Your task to perform on an android device: Open a new private window in Chrome Image 0: 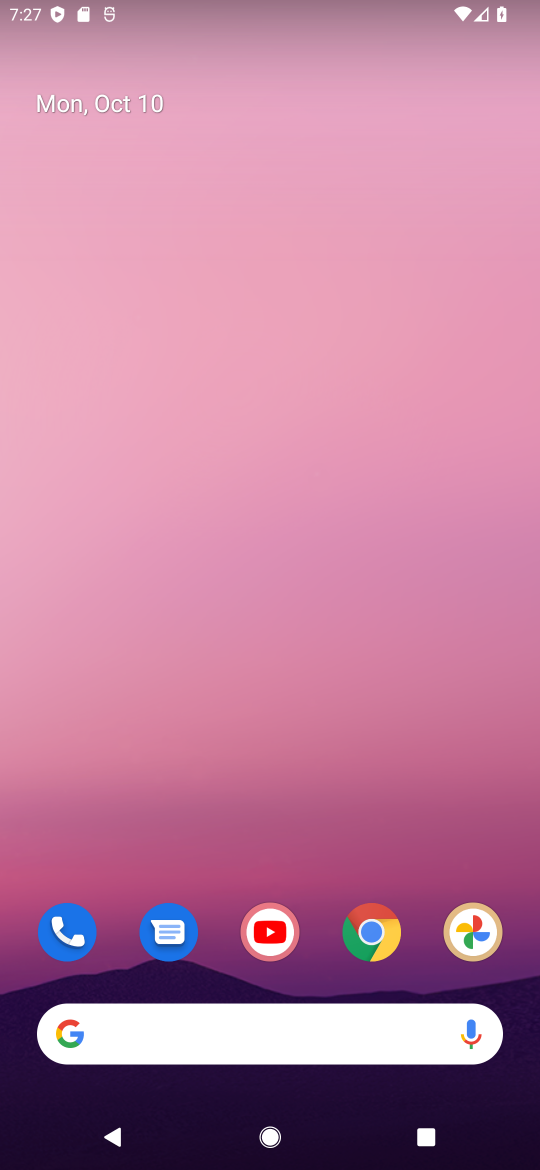
Step 0: drag from (312, 990) to (292, 158)
Your task to perform on an android device: Open a new private window in Chrome Image 1: 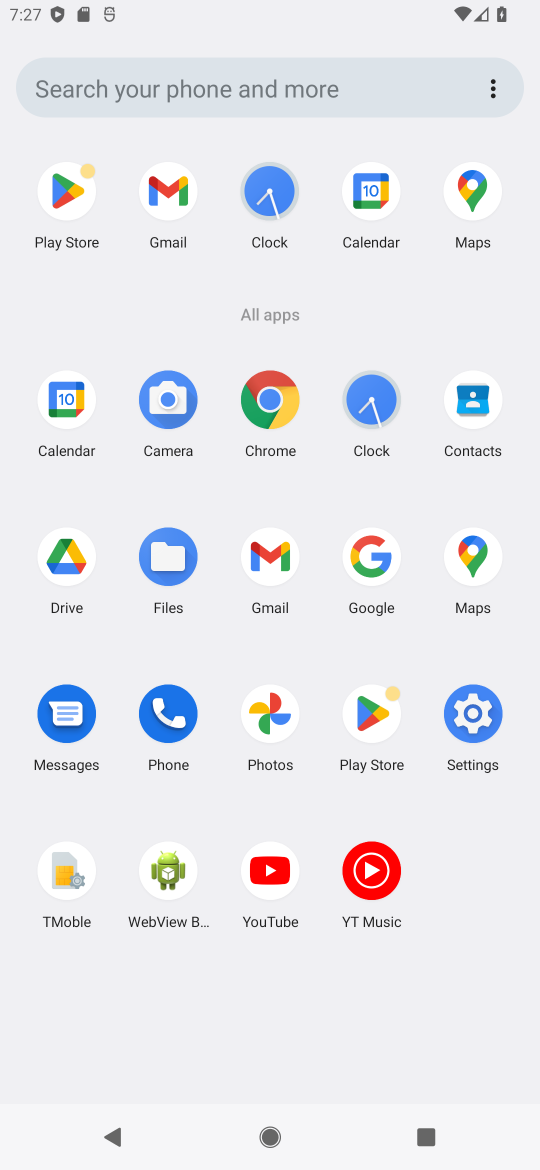
Step 1: click (270, 400)
Your task to perform on an android device: Open a new private window in Chrome Image 2: 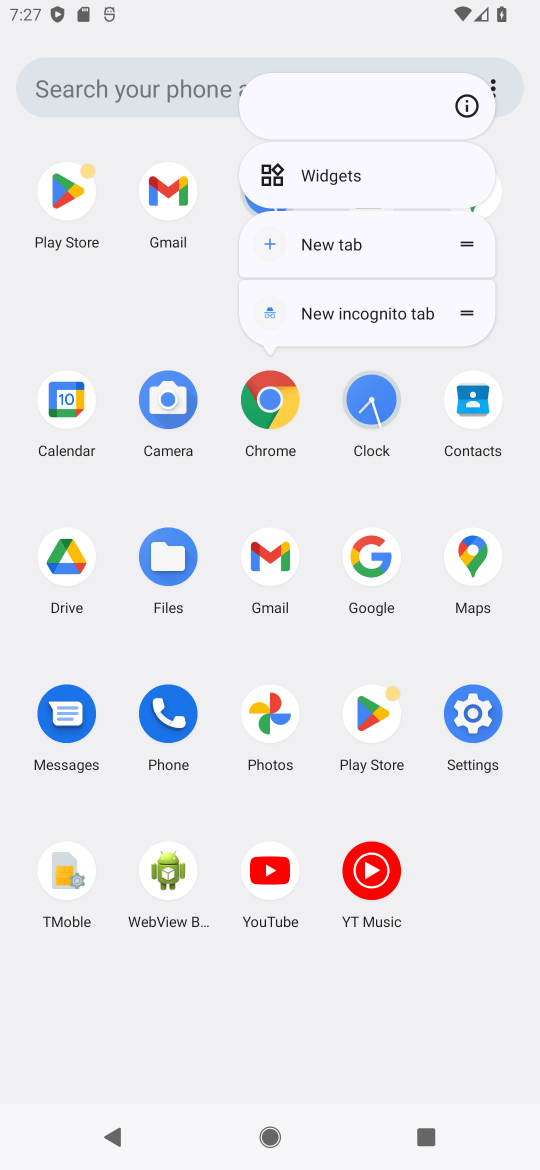
Step 2: click (270, 400)
Your task to perform on an android device: Open a new private window in Chrome Image 3: 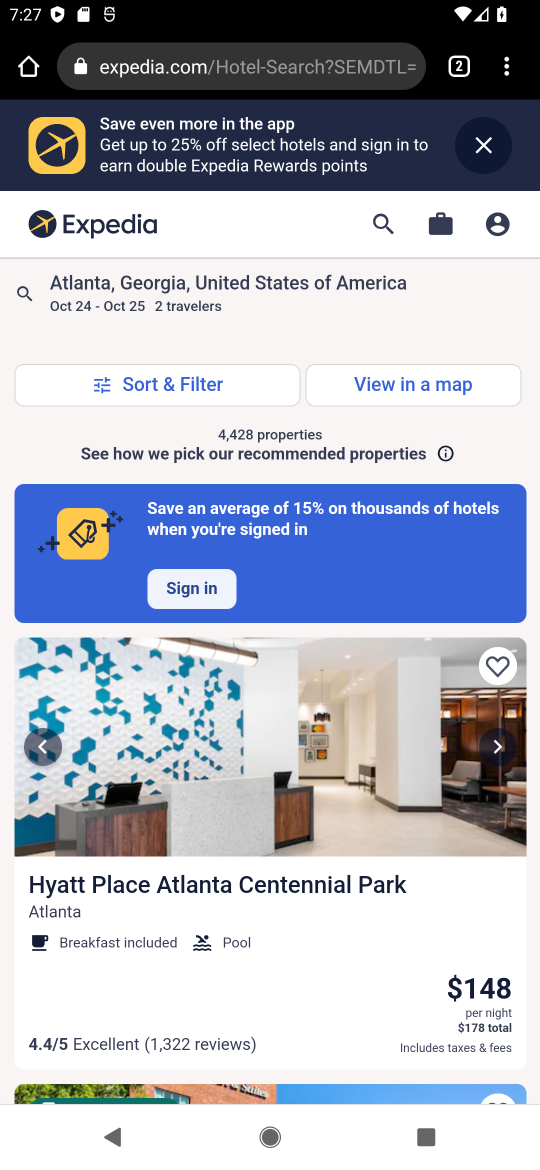
Step 3: task complete